Your task to perform on an android device: Open Google Chrome and click the shortcut for Amazon.com Image 0: 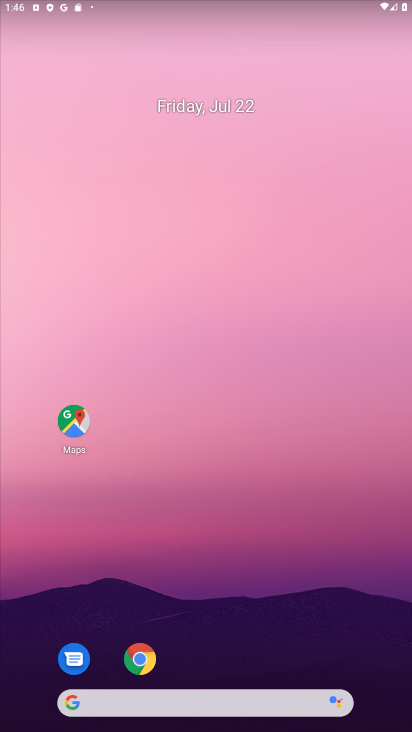
Step 0: click (145, 659)
Your task to perform on an android device: Open Google Chrome and click the shortcut for Amazon.com Image 1: 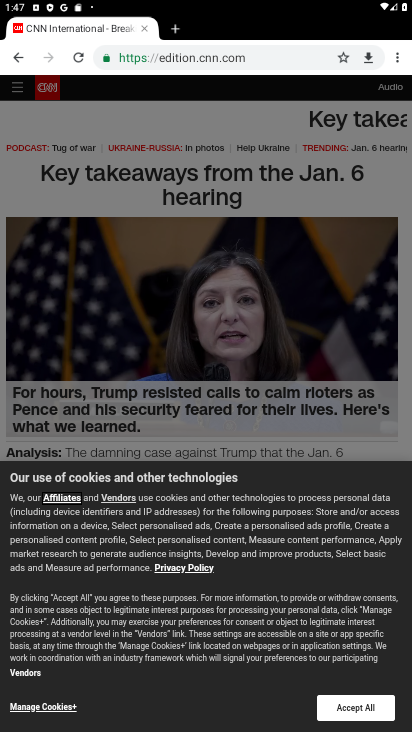
Step 1: click (398, 65)
Your task to perform on an android device: Open Google Chrome and click the shortcut for Amazon.com Image 2: 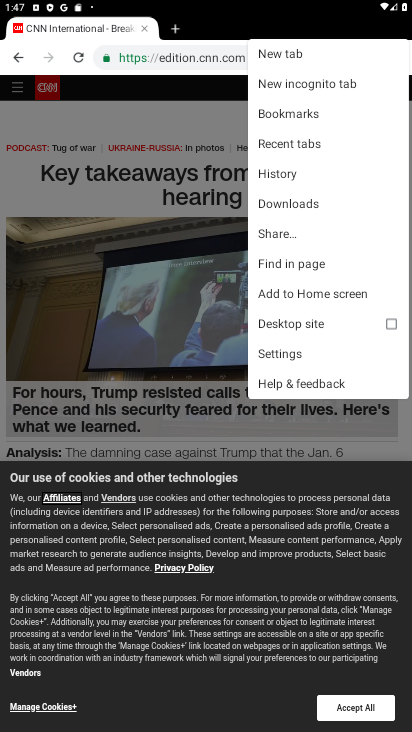
Step 2: click (290, 291)
Your task to perform on an android device: Open Google Chrome and click the shortcut for Amazon.com Image 3: 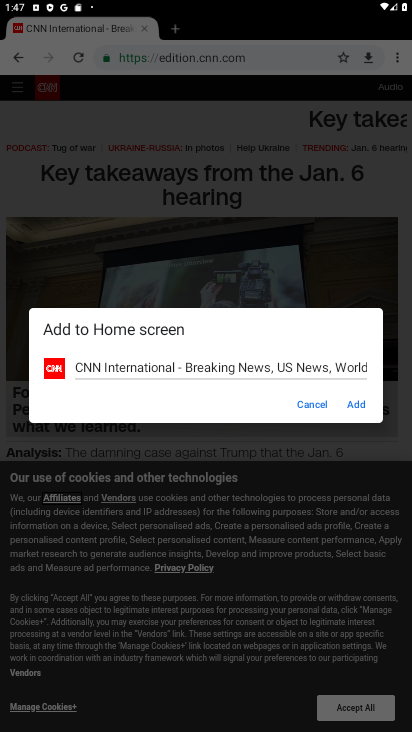
Step 3: click (350, 409)
Your task to perform on an android device: Open Google Chrome and click the shortcut for Amazon.com Image 4: 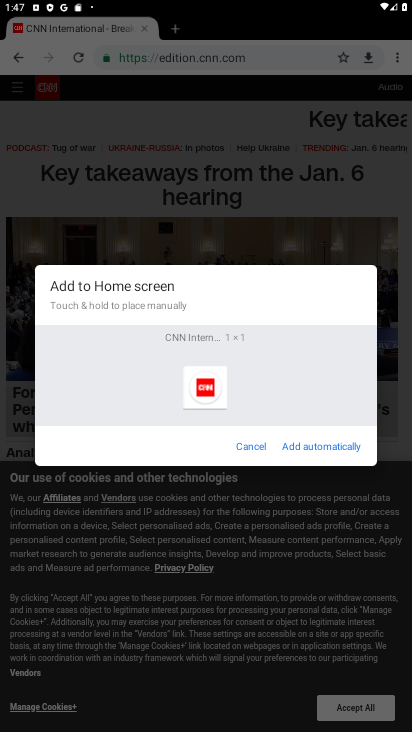
Step 4: click (325, 444)
Your task to perform on an android device: Open Google Chrome and click the shortcut for Amazon.com Image 5: 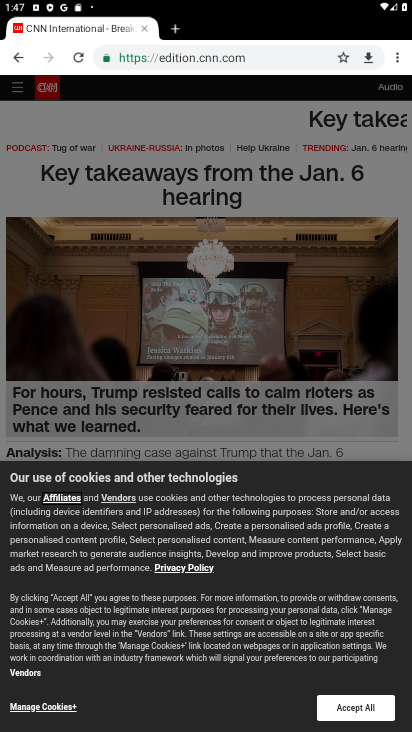
Step 5: task complete